Your task to perform on an android device: Open battery settings Image 0: 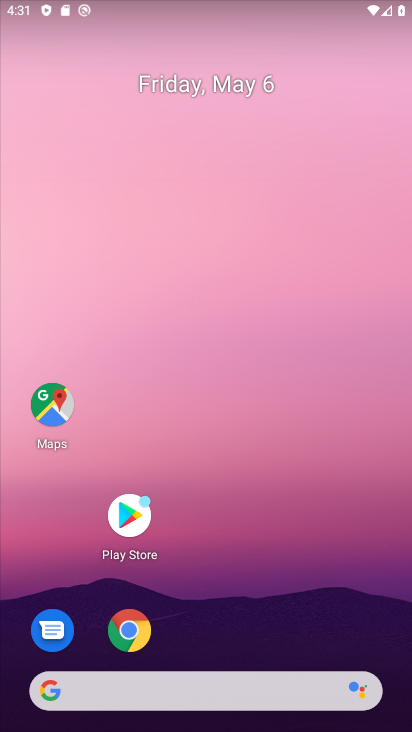
Step 0: drag from (200, 596) to (231, 284)
Your task to perform on an android device: Open battery settings Image 1: 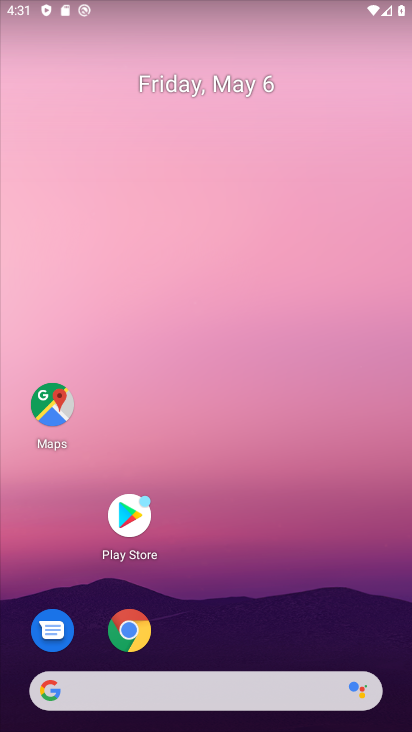
Step 1: drag from (221, 584) to (265, 0)
Your task to perform on an android device: Open battery settings Image 2: 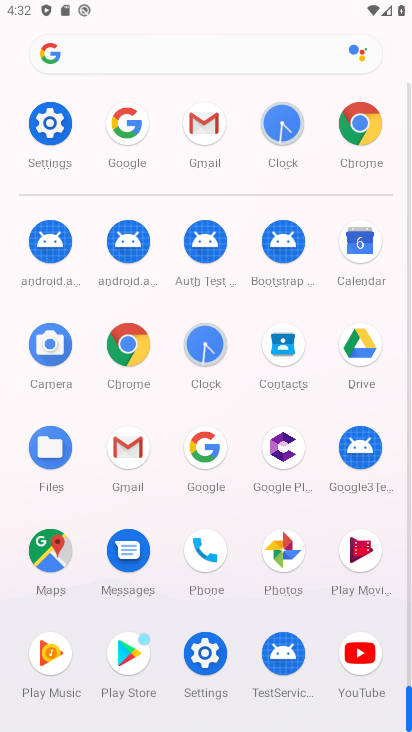
Step 2: click (53, 133)
Your task to perform on an android device: Open battery settings Image 3: 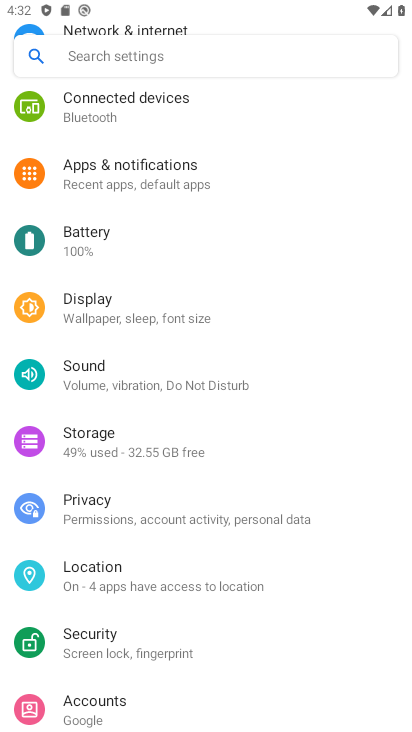
Step 3: click (160, 261)
Your task to perform on an android device: Open battery settings Image 4: 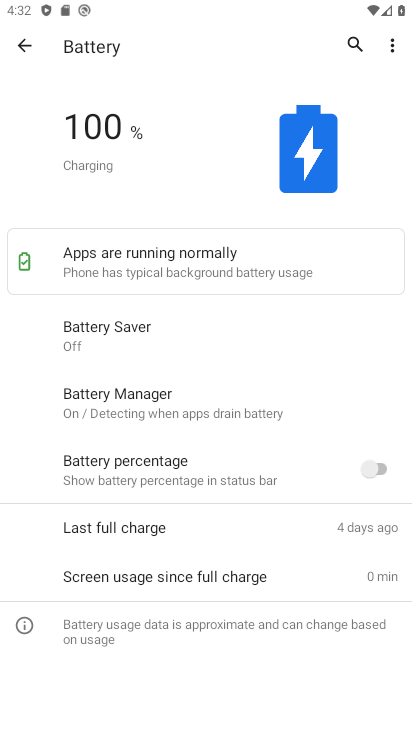
Step 4: task complete